Your task to perform on an android device: Go to Yahoo.com Image 0: 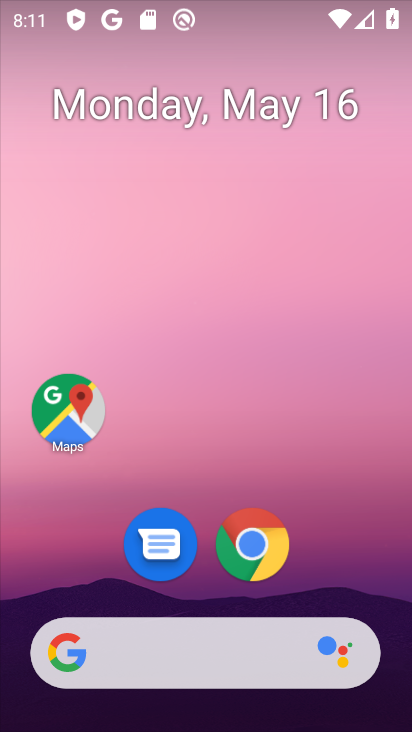
Step 0: click (270, 537)
Your task to perform on an android device: Go to Yahoo.com Image 1: 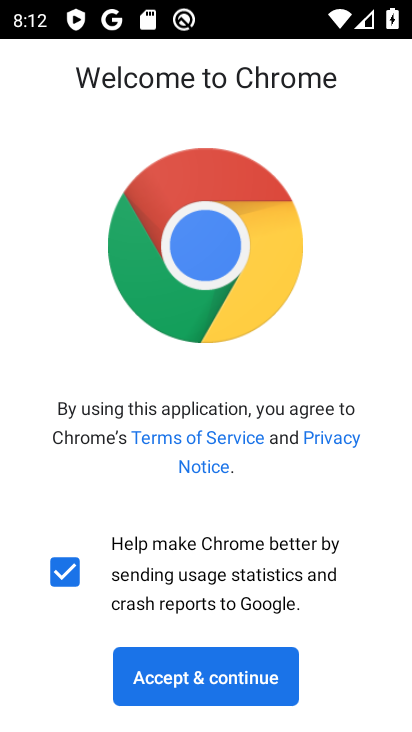
Step 1: click (239, 684)
Your task to perform on an android device: Go to Yahoo.com Image 2: 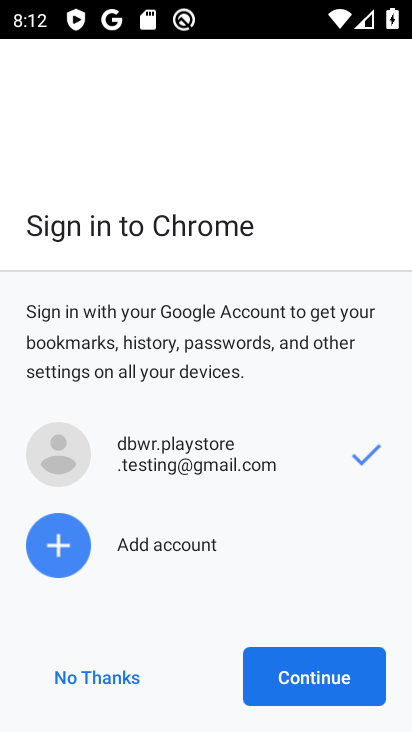
Step 2: click (342, 664)
Your task to perform on an android device: Go to Yahoo.com Image 3: 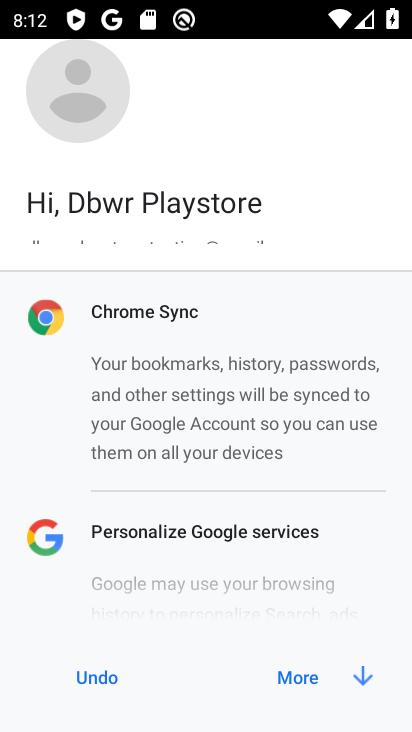
Step 3: click (301, 680)
Your task to perform on an android device: Go to Yahoo.com Image 4: 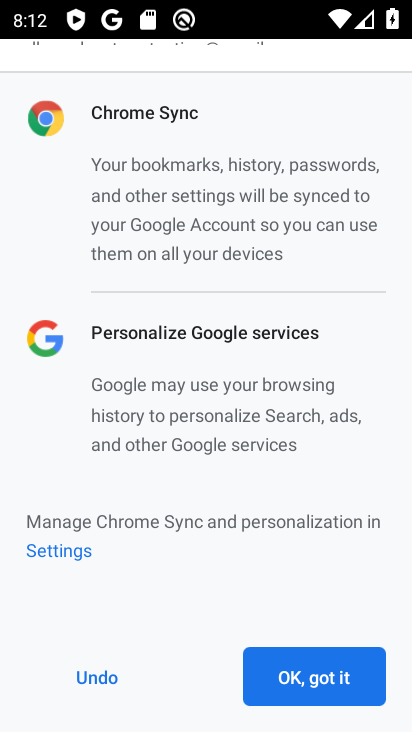
Step 4: click (301, 680)
Your task to perform on an android device: Go to Yahoo.com Image 5: 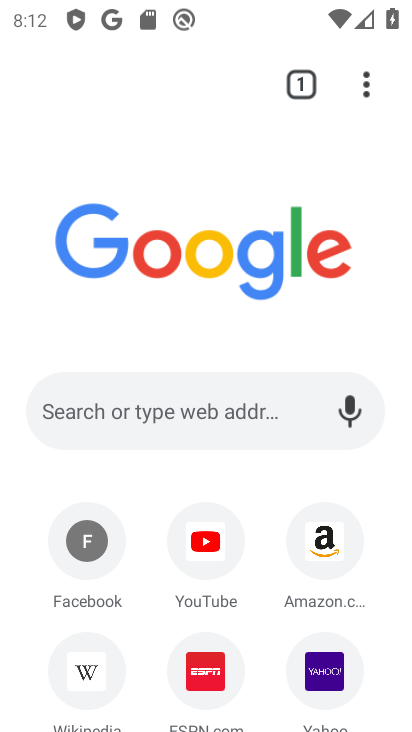
Step 5: drag from (359, 666) to (320, 688)
Your task to perform on an android device: Go to Yahoo.com Image 6: 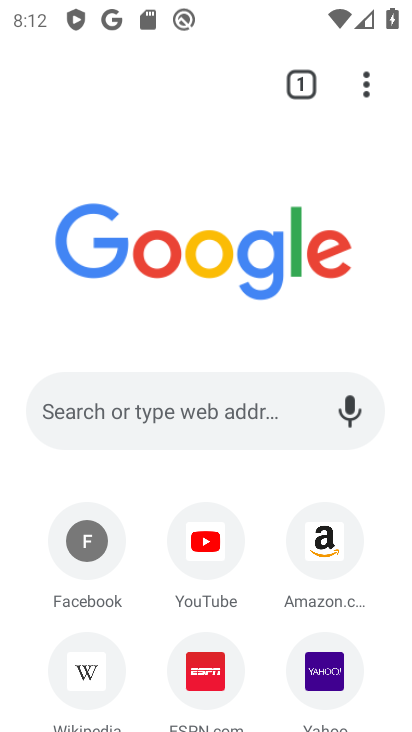
Step 6: click (320, 688)
Your task to perform on an android device: Go to Yahoo.com Image 7: 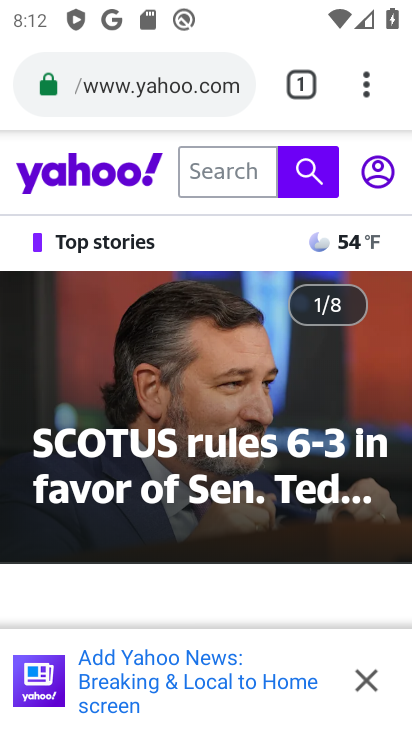
Step 7: task complete